Your task to perform on an android device: open app "Google Chat" (install if not already installed) Image 0: 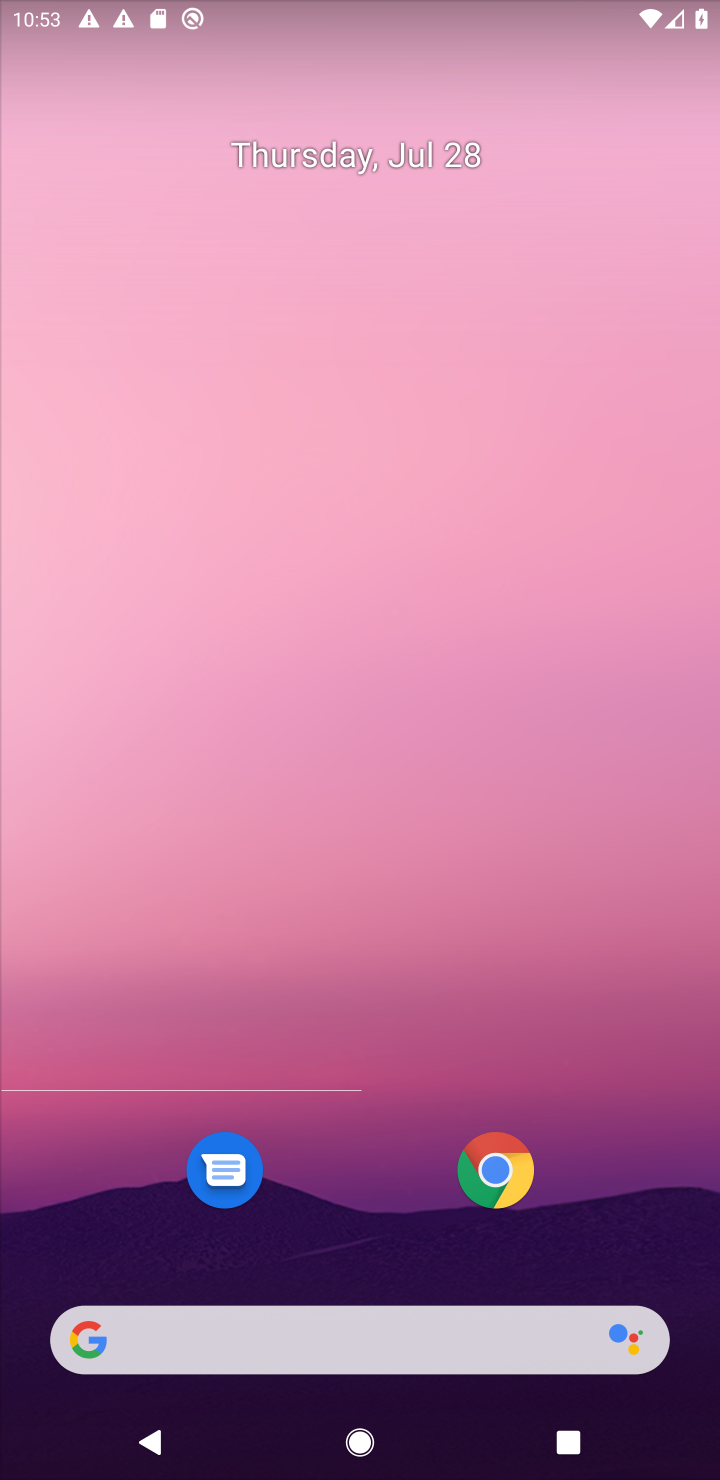
Step 0: press home button
Your task to perform on an android device: open app "Google Chat" (install if not already installed) Image 1: 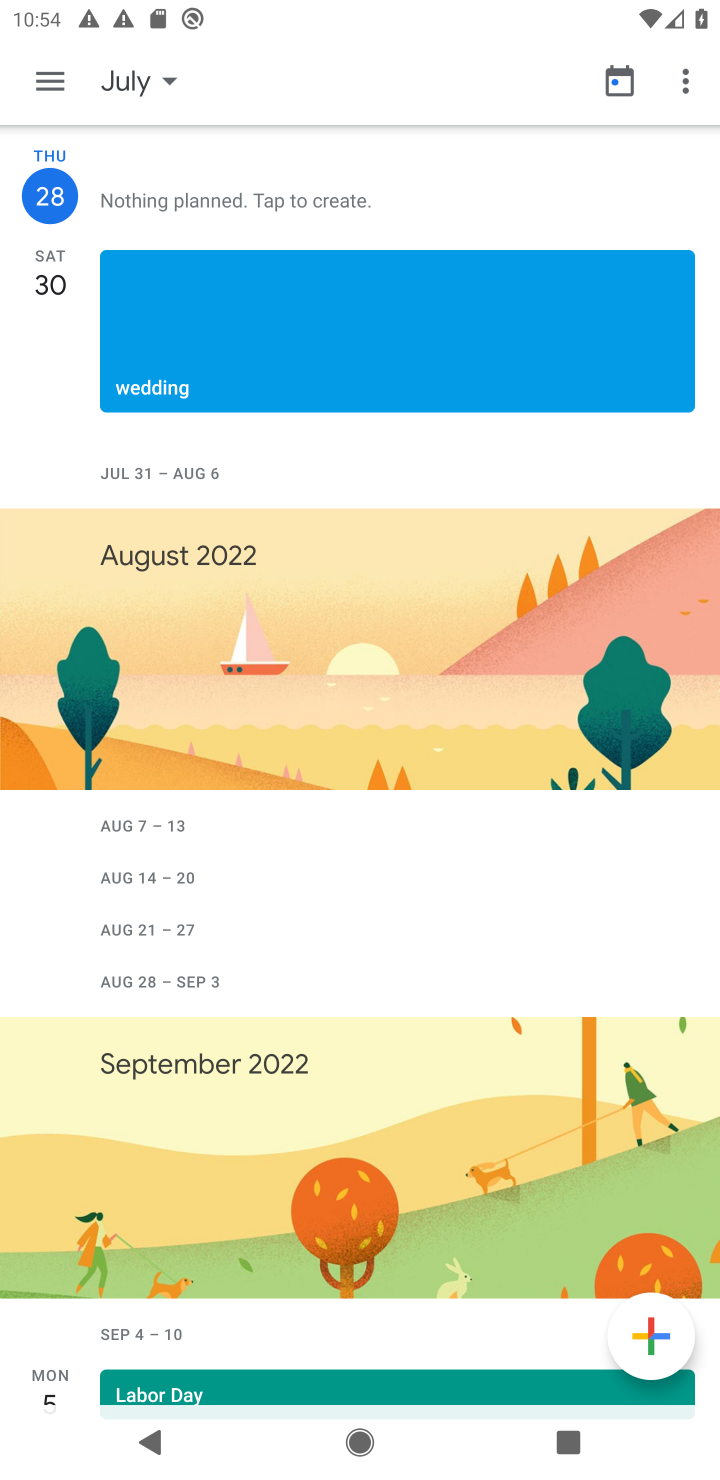
Step 1: click (468, 36)
Your task to perform on an android device: open app "Google Chat" (install if not already installed) Image 2: 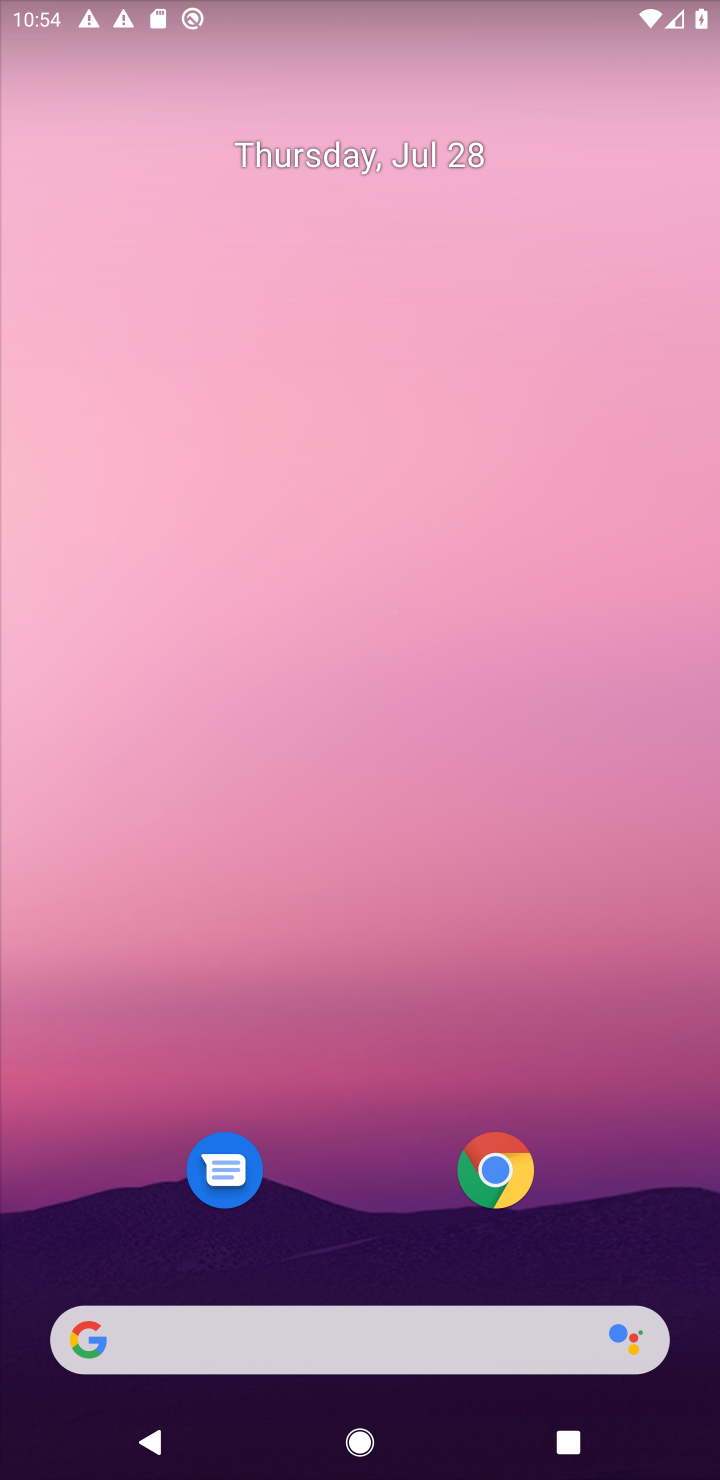
Step 2: drag from (483, 1174) to (437, 12)
Your task to perform on an android device: open app "Google Chat" (install if not already installed) Image 3: 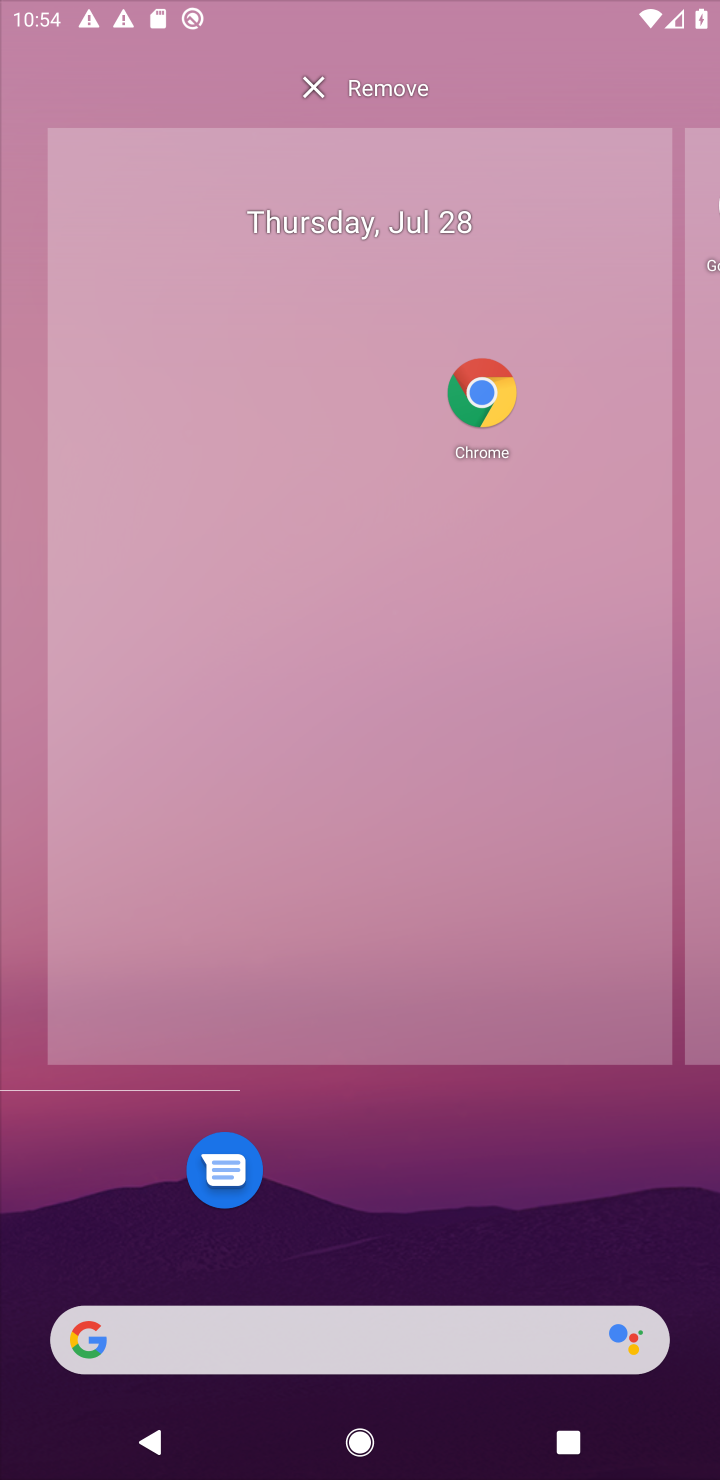
Step 3: drag from (483, 1240) to (501, 168)
Your task to perform on an android device: open app "Google Chat" (install if not already installed) Image 4: 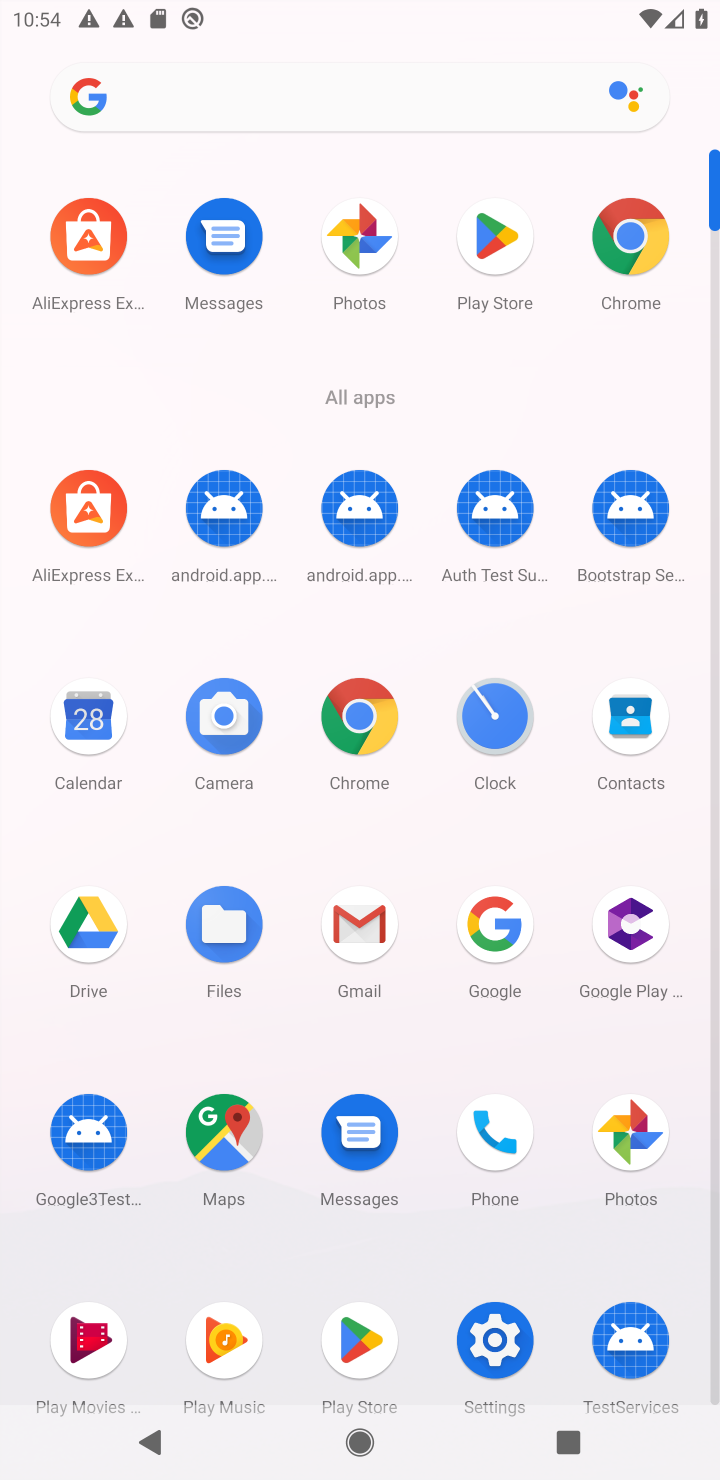
Step 4: click (490, 251)
Your task to perform on an android device: open app "Google Chat" (install if not already installed) Image 5: 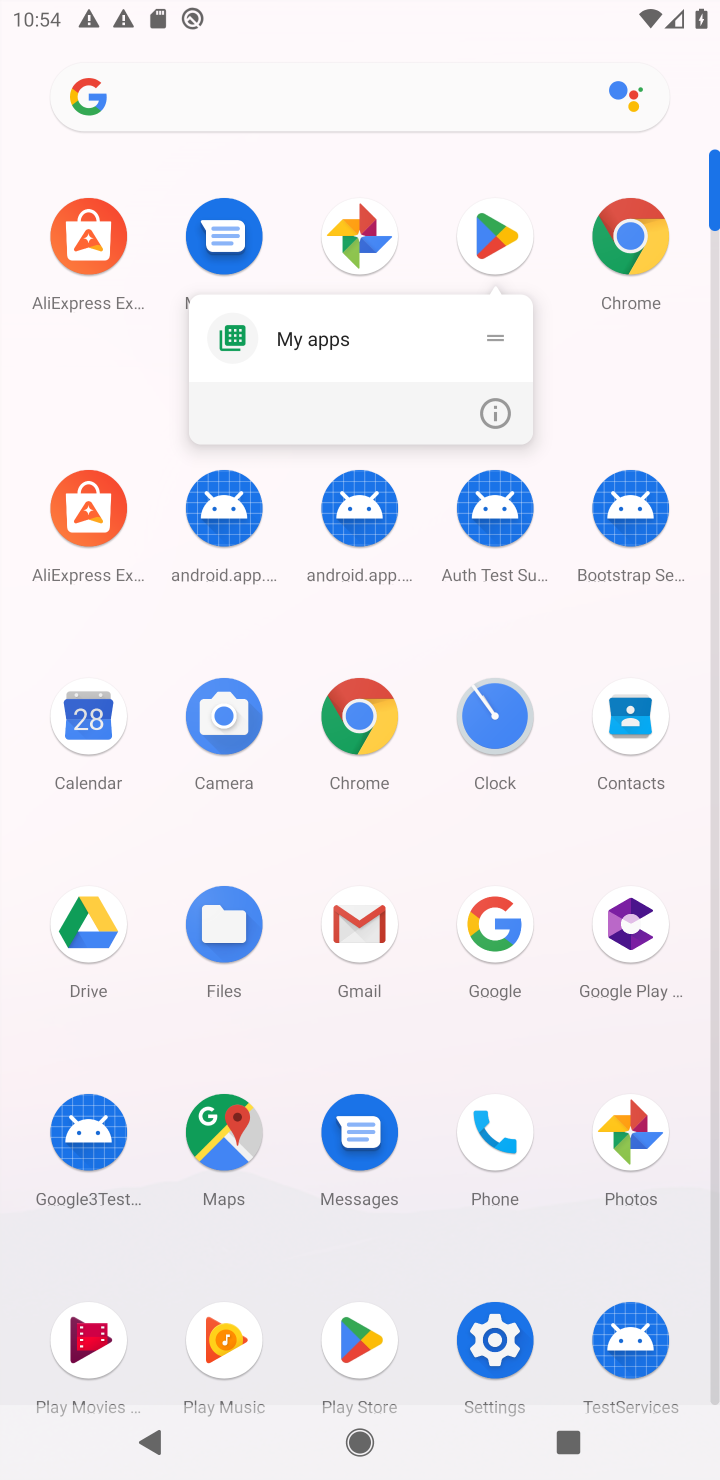
Step 5: click (490, 251)
Your task to perform on an android device: open app "Google Chat" (install if not already installed) Image 6: 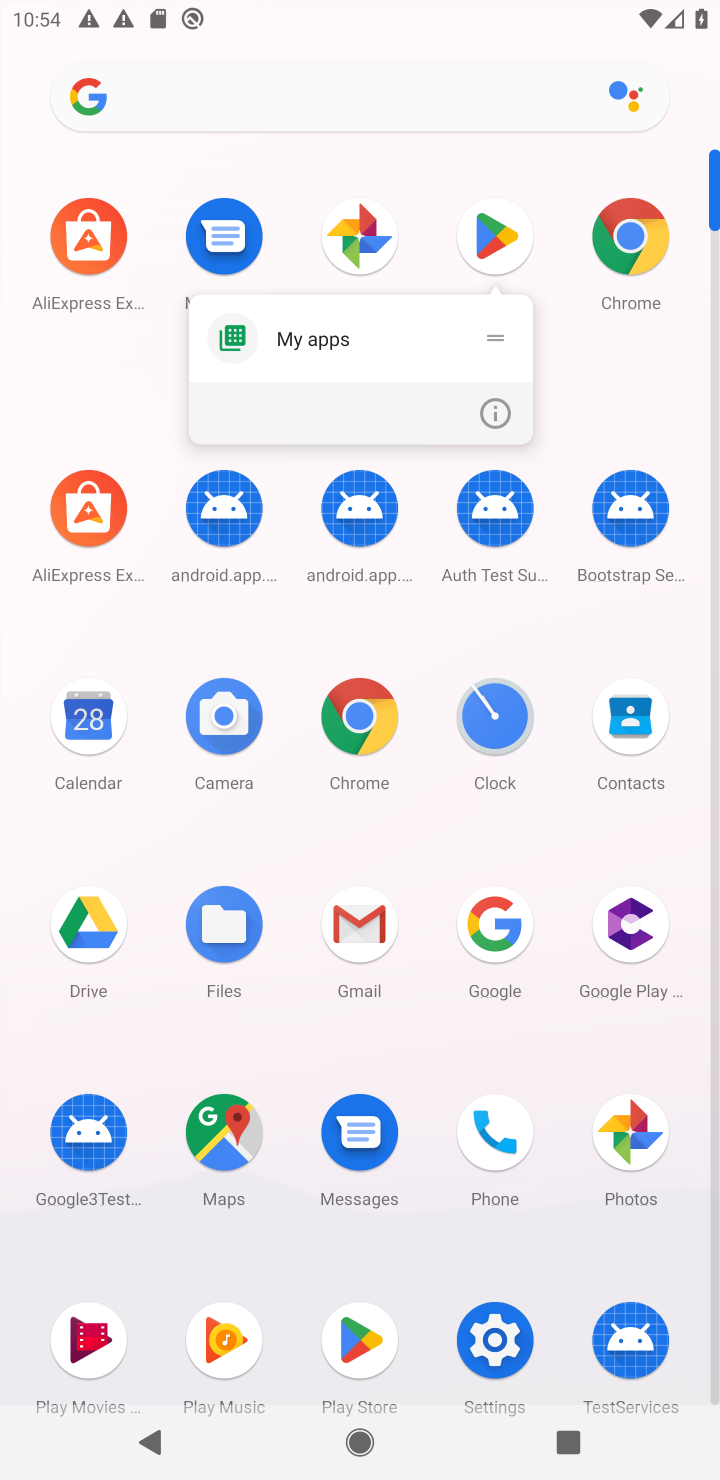
Step 6: click (490, 251)
Your task to perform on an android device: open app "Google Chat" (install if not already installed) Image 7: 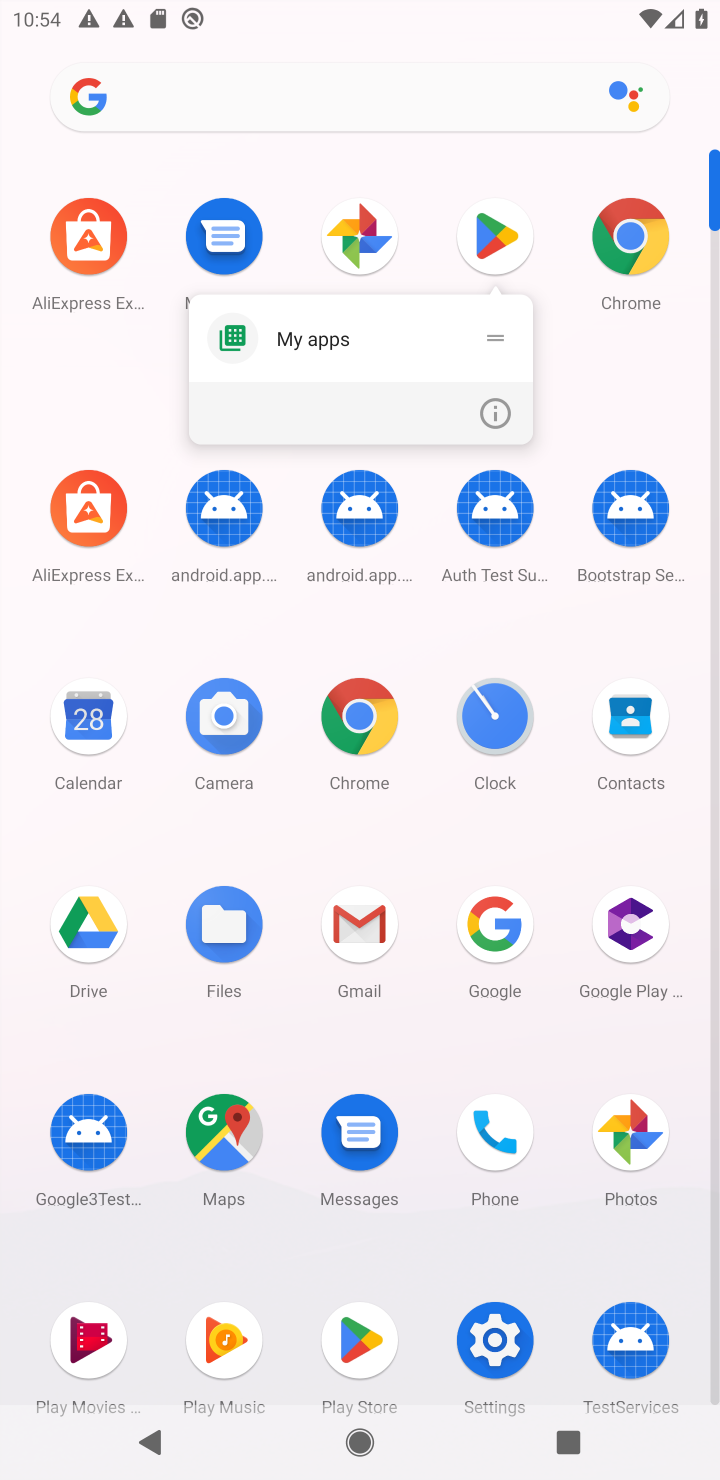
Step 7: click (503, 253)
Your task to perform on an android device: open app "Google Chat" (install if not already installed) Image 8: 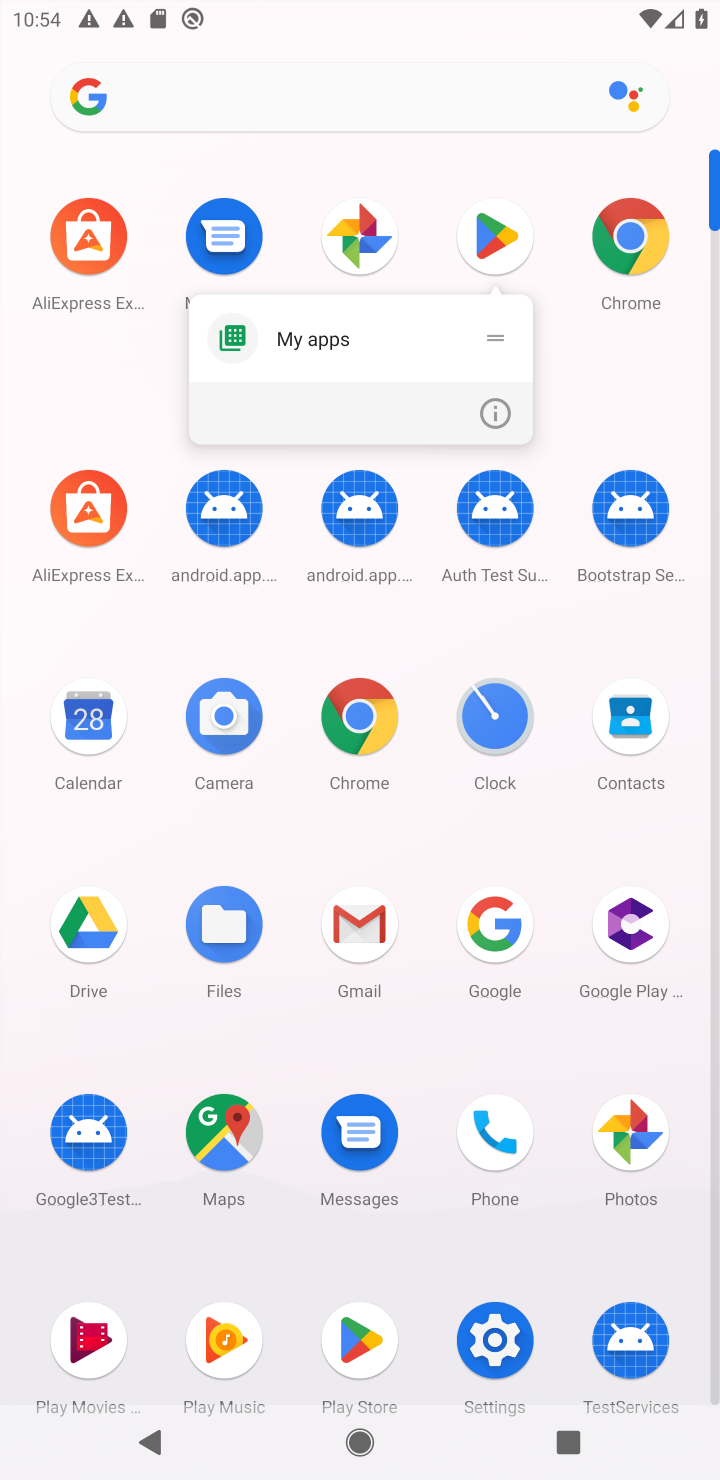
Step 8: click (500, 246)
Your task to perform on an android device: open app "Google Chat" (install if not already installed) Image 9: 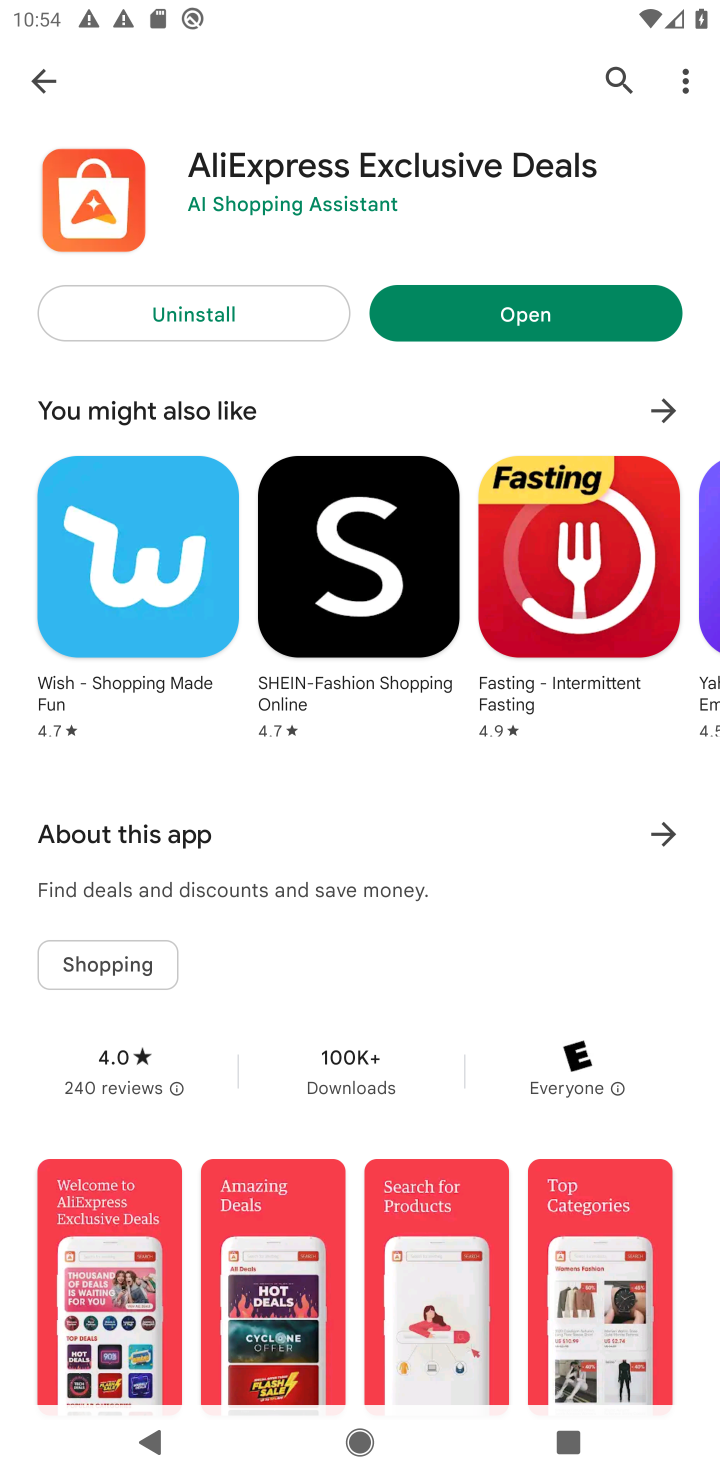
Step 9: click (618, 68)
Your task to perform on an android device: open app "Google Chat" (install if not already installed) Image 10: 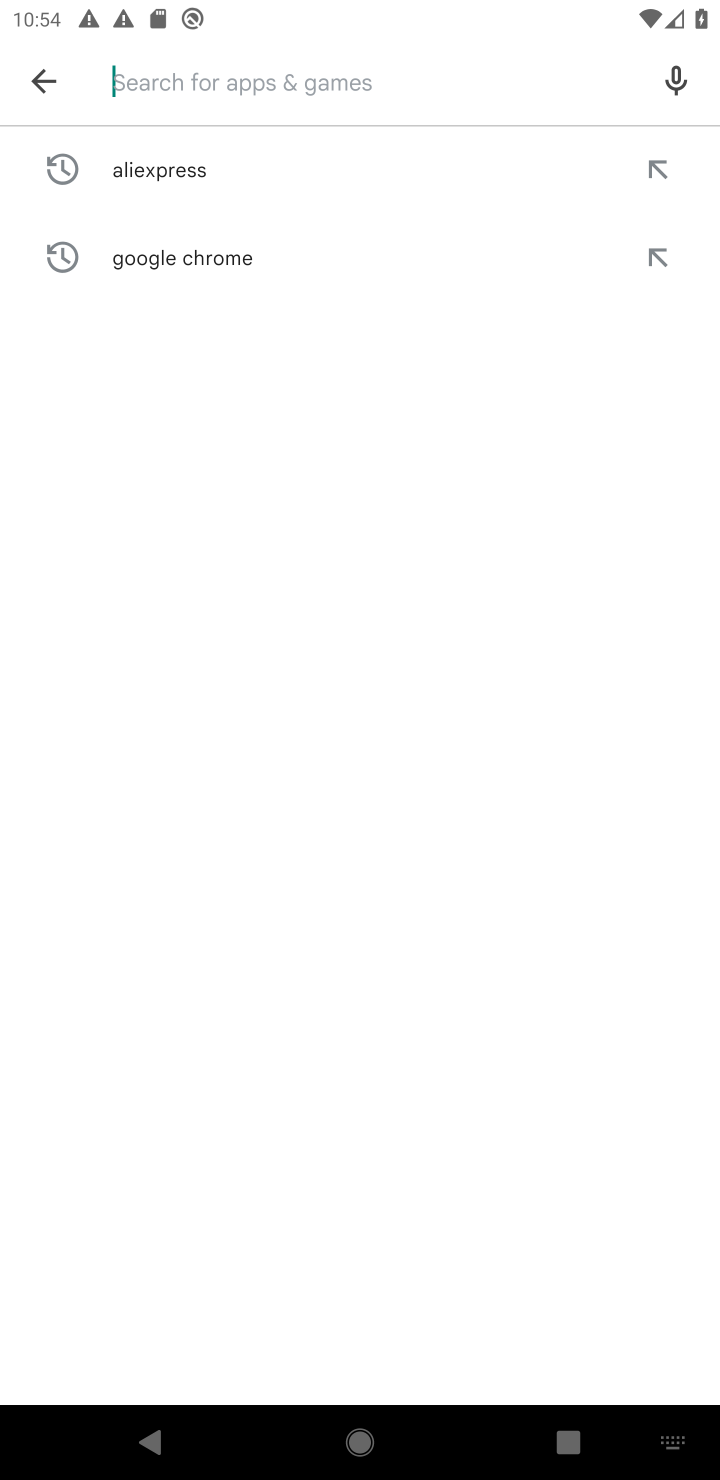
Step 10: type "google chat"
Your task to perform on an android device: open app "Google Chat" (install if not already installed) Image 11: 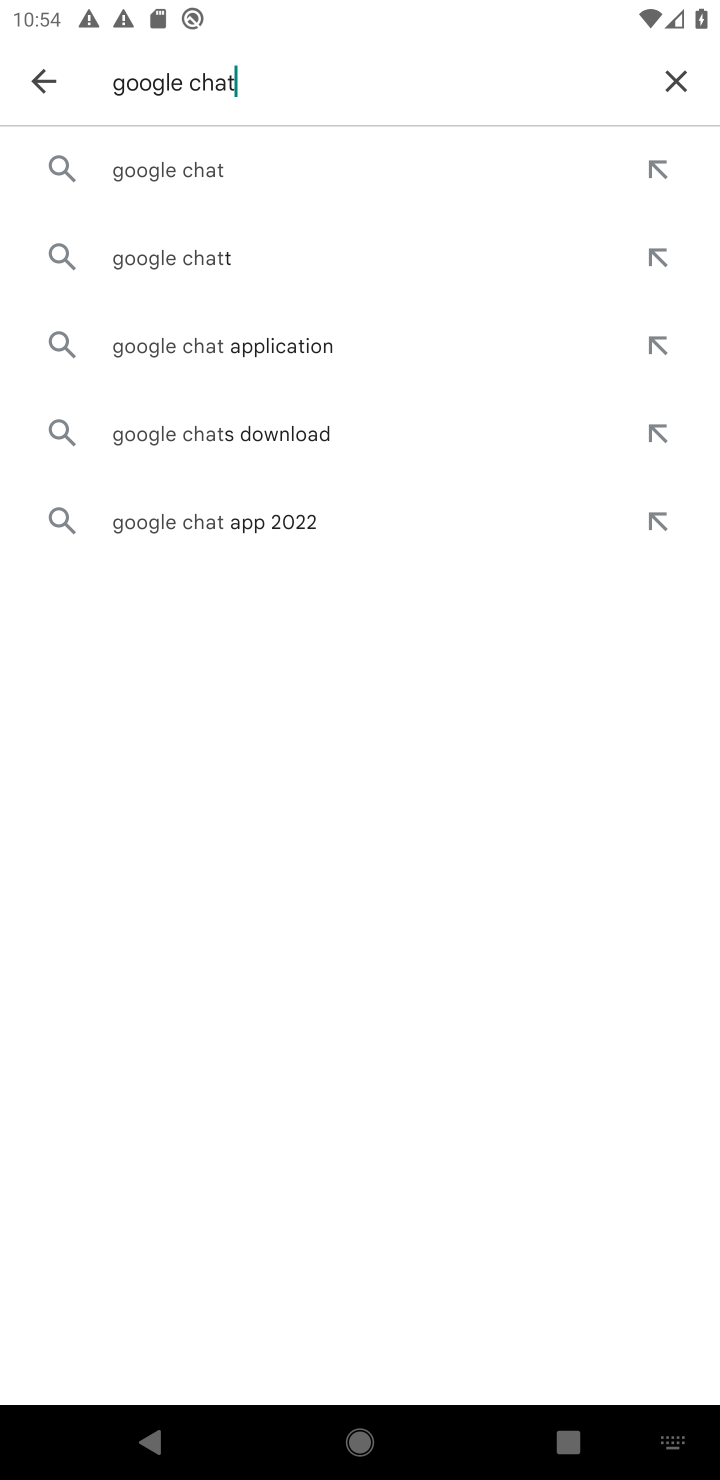
Step 11: click (180, 177)
Your task to perform on an android device: open app "Google Chat" (install if not already installed) Image 12: 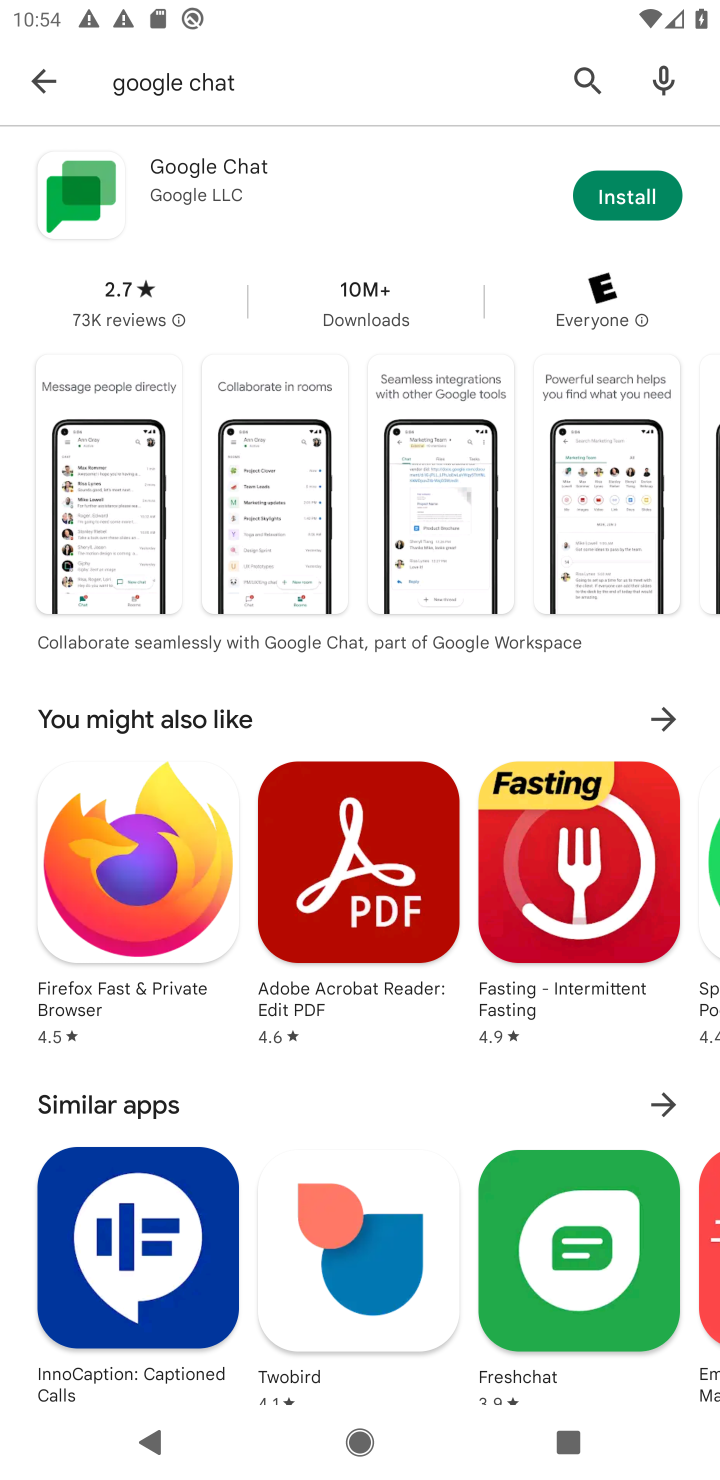
Step 12: click (675, 198)
Your task to perform on an android device: open app "Google Chat" (install if not already installed) Image 13: 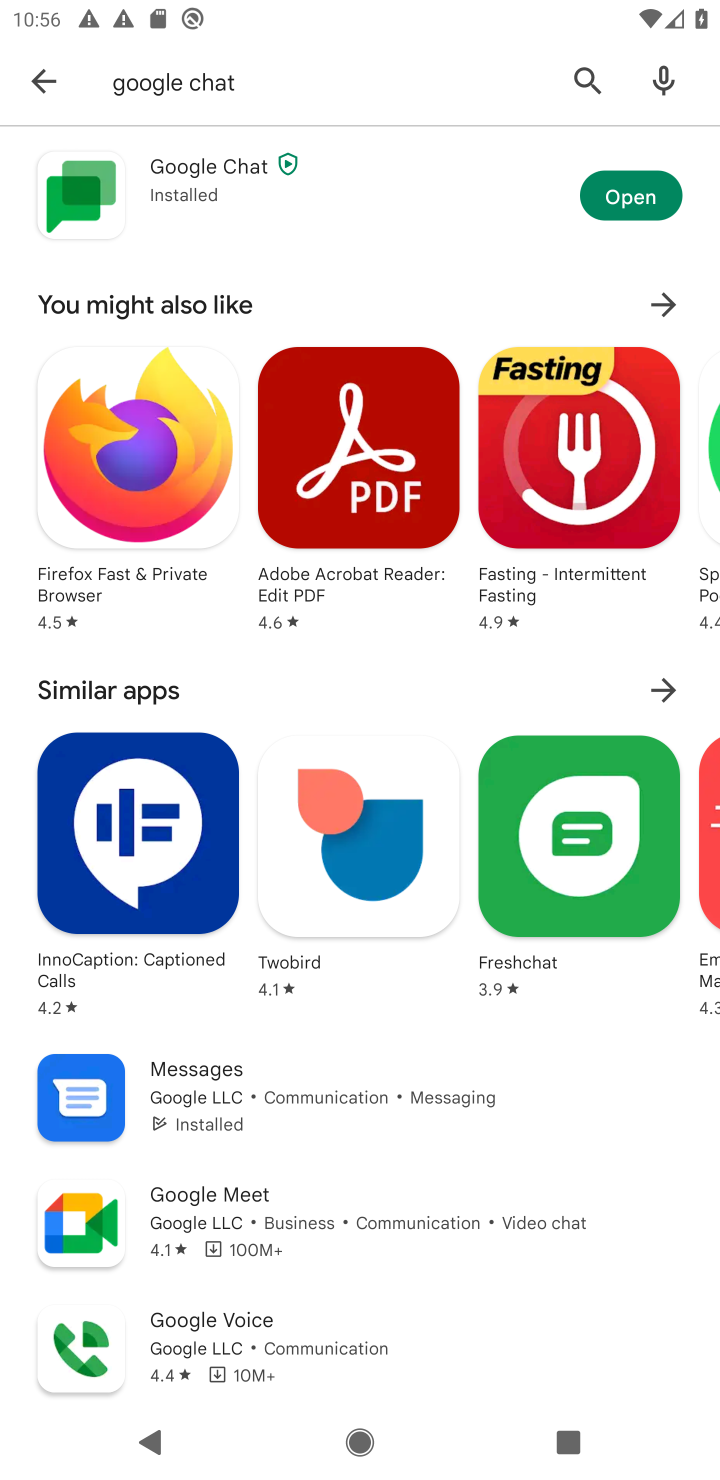
Step 13: click (637, 202)
Your task to perform on an android device: open app "Google Chat" (install if not already installed) Image 14: 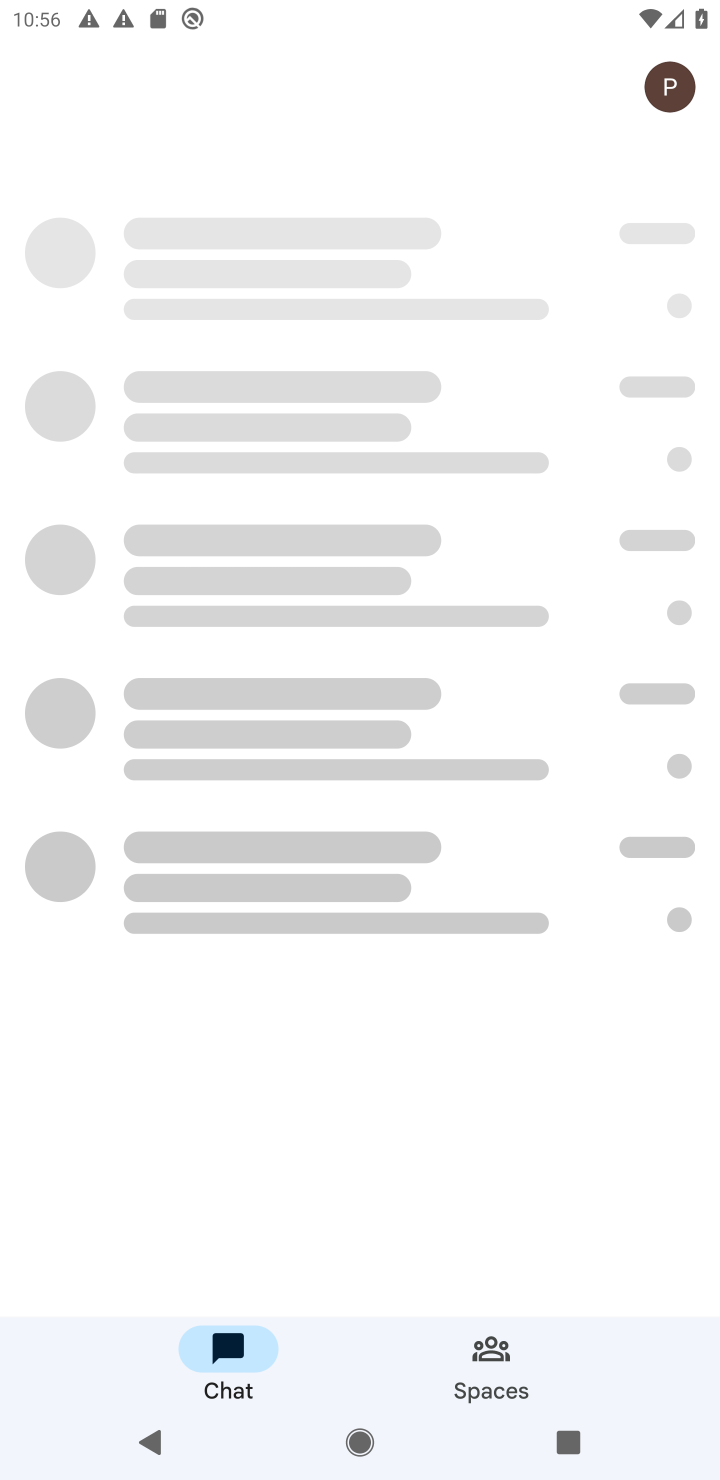
Step 14: task complete